Your task to perform on an android device: Check the weather Image 0: 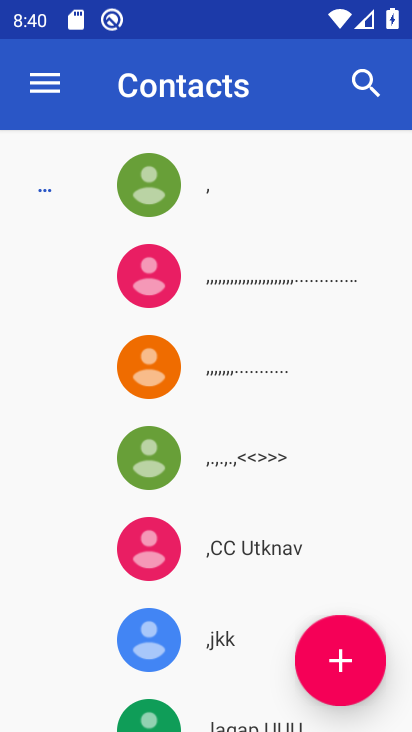
Step 0: press home button
Your task to perform on an android device: Check the weather Image 1: 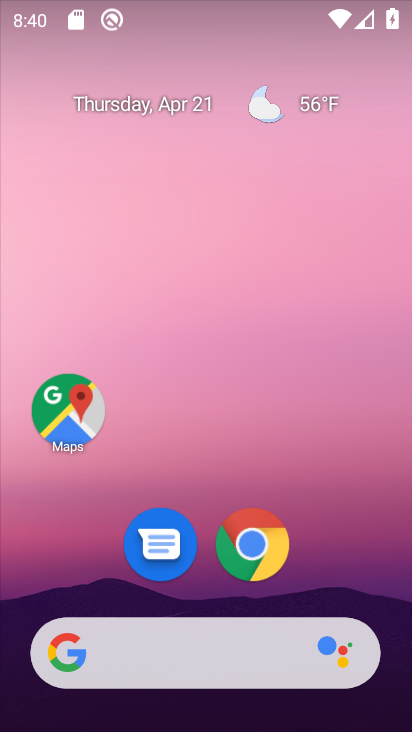
Step 1: click (268, 114)
Your task to perform on an android device: Check the weather Image 2: 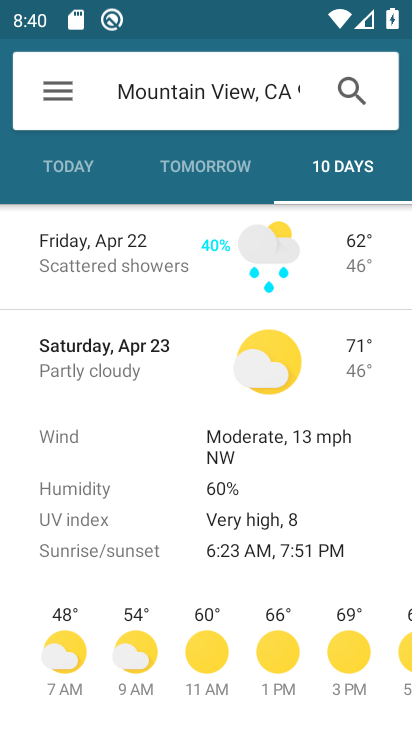
Step 2: drag from (185, 230) to (202, 561)
Your task to perform on an android device: Check the weather Image 3: 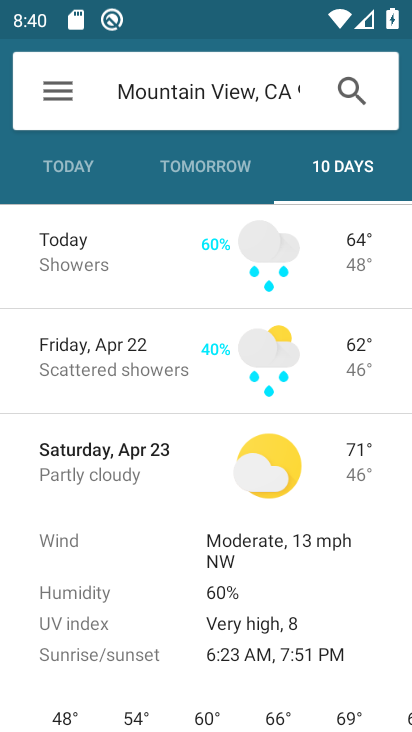
Step 3: click (61, 169)
Your task to perform on an android device: Check the weather Image 4: 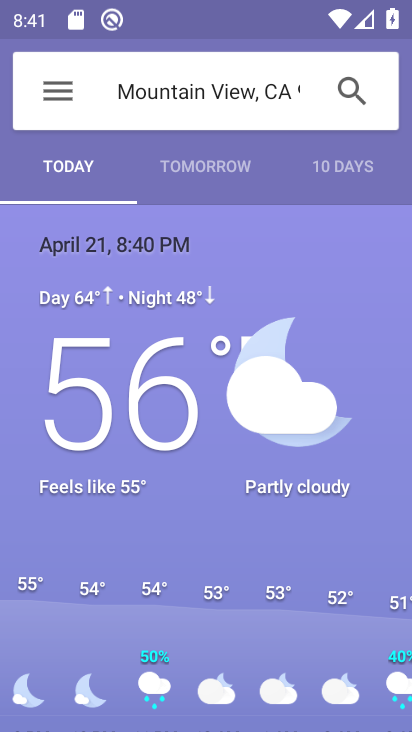
Step 4: task complete